Your task to perform on an android device: move a message to another label in the gmail app Image 0: 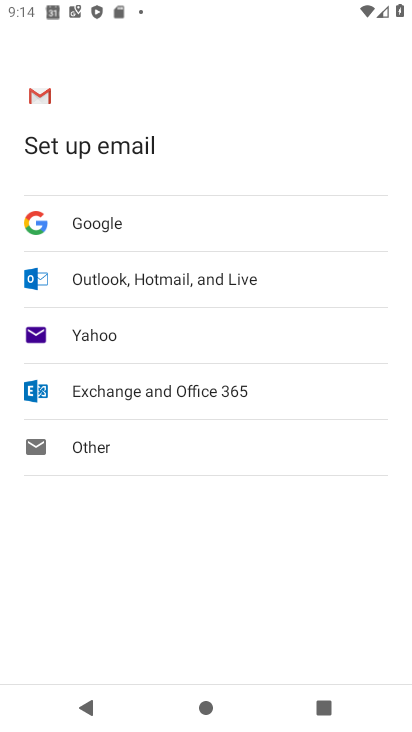
Step 0: press home button
Your task to perform on an android device: move a message to another label in the gmail app Image 1: 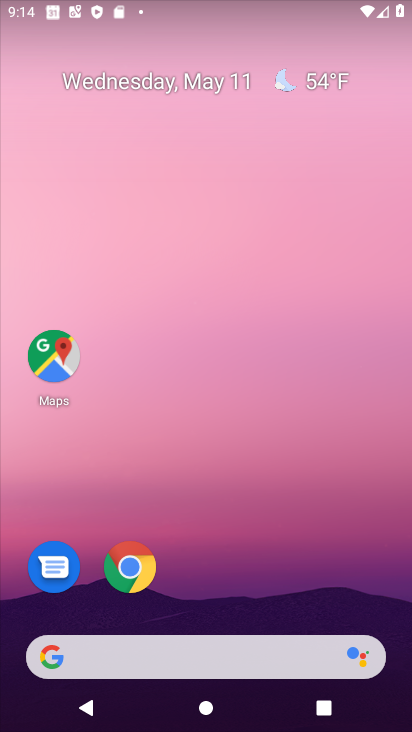
Step 1: drag from (216, 622) to (223, 0)
Your task to perform on an android device: move a message to another label in the gmail app Image 2: 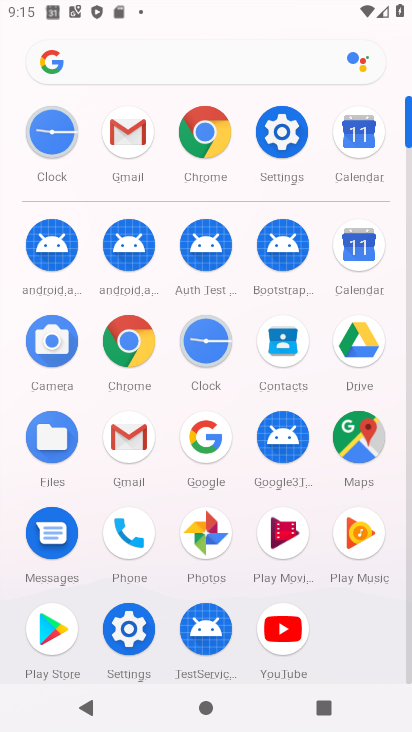
Step 2: click (140, 448)
Your task to perform on an android device: move a message to another label in the gmail app Image 3: 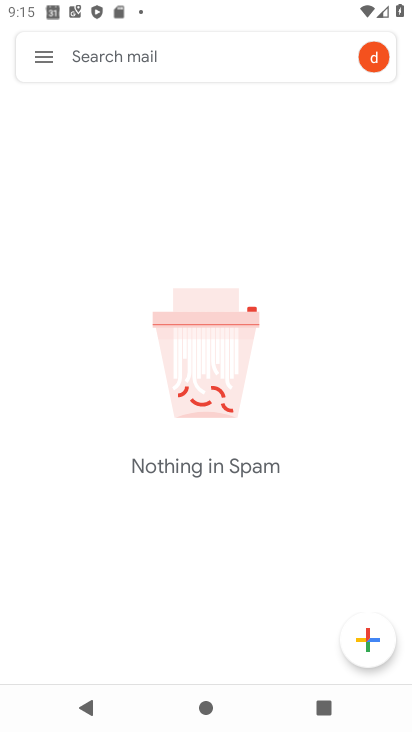
Step 3: click (41, 67)
Your task to perform on an android device: move a message to another label in the gmail app Image 4: 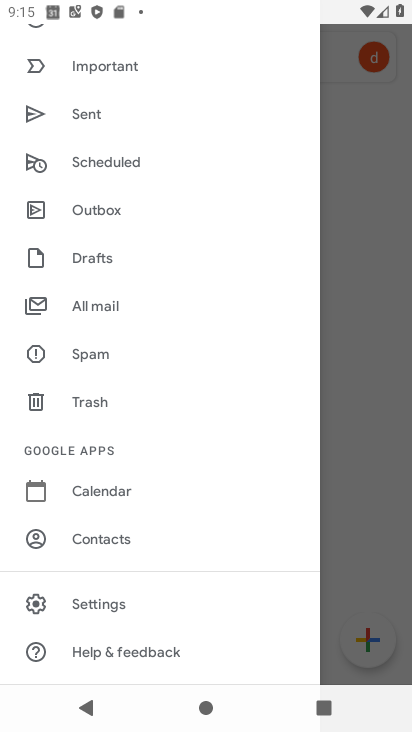
Step 4: click (101, 314)
Your task to perform on an android device: move a message to another label in the gmail app Image 5: 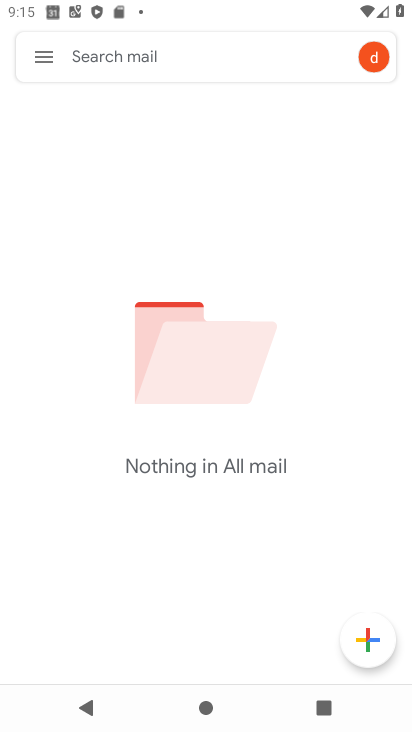
Step 5: task complete